Your task to perform on an android device: turn on priority inbox in the gmail app Image 0: 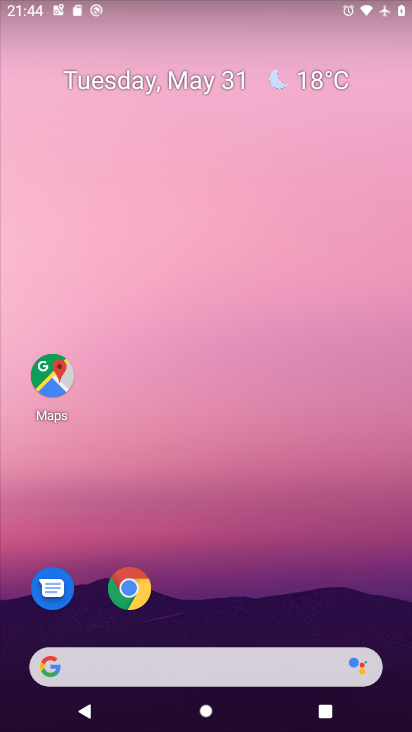
Step 0: press home button
Your task to perform on an android device: turn on priority inbox in the gmail app Image 1: 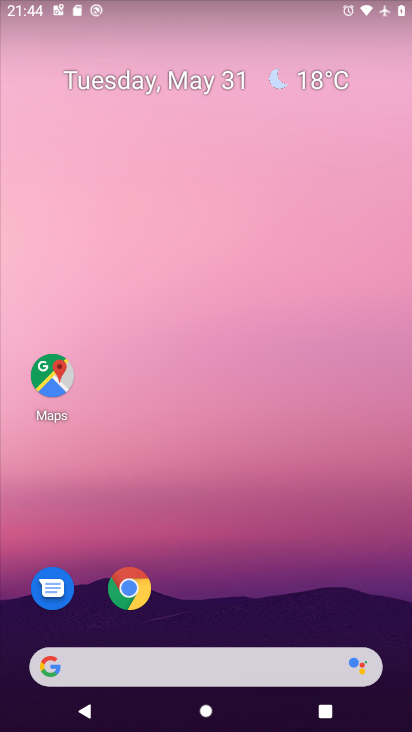
Step 1: drag from (176, 623) to (335, 78)
Your task to perform on an android device: turn on priority inbox in the gmail app Image 2: 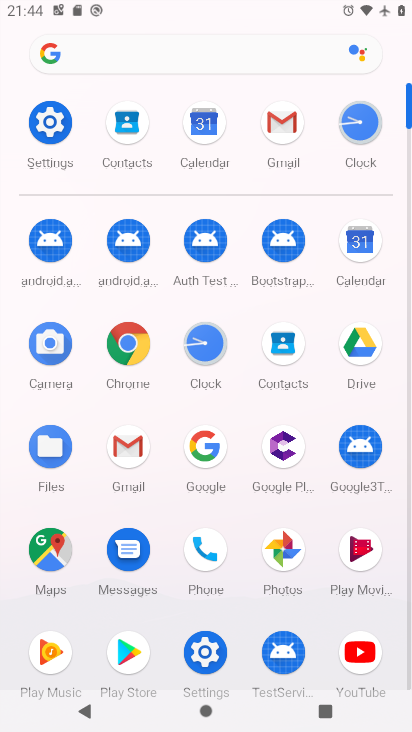
Step 2: click (281, 132)
Your task to perform on an android device: turn on priority inbox in the gmail app Image 3: 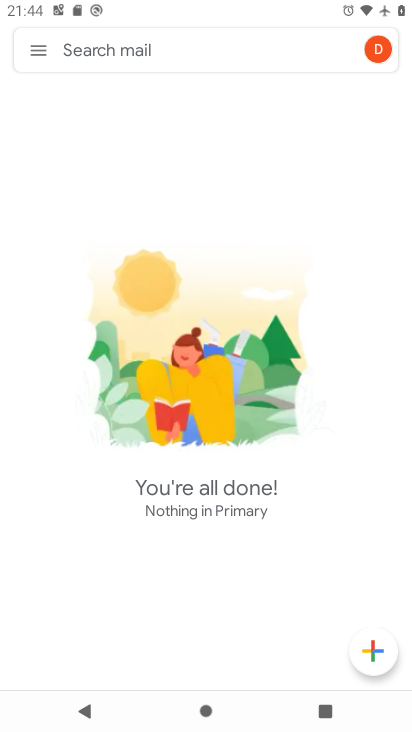
Step 3: click (31, 46)
Your task to perform on an android device: turn on priority inbox in the gmail app Image 4: 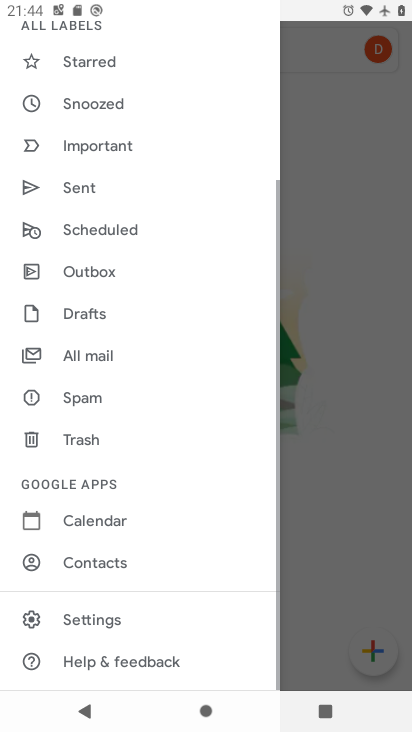
Step 4: click (71, 625)
Your task to perform on an android device: turn on priority inbox in the gmail app Image 5: 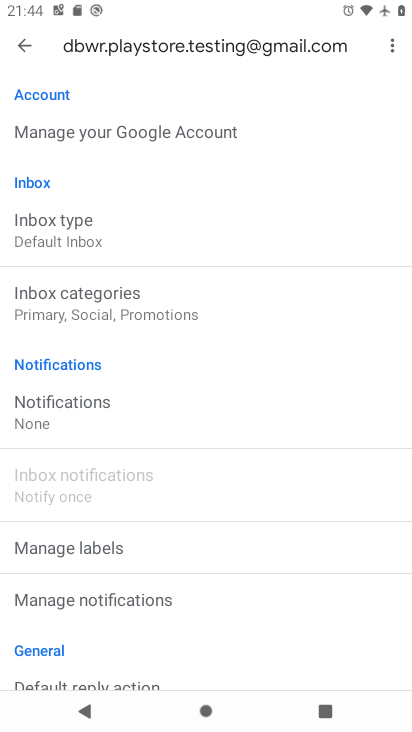
Step 5: click (64, 223)
Your task to perform on an android device: turn on priority inbox in the gmail app Image 6: 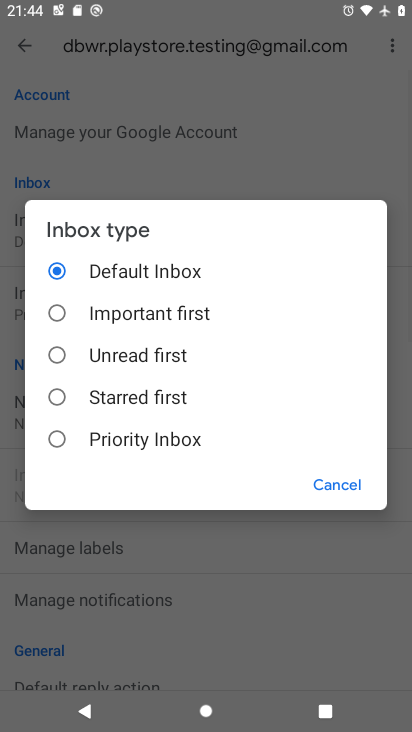
Step 6: click (56, 446)
Your task to perform on an android device: turn on priority inbox in the gmail app Image 7: 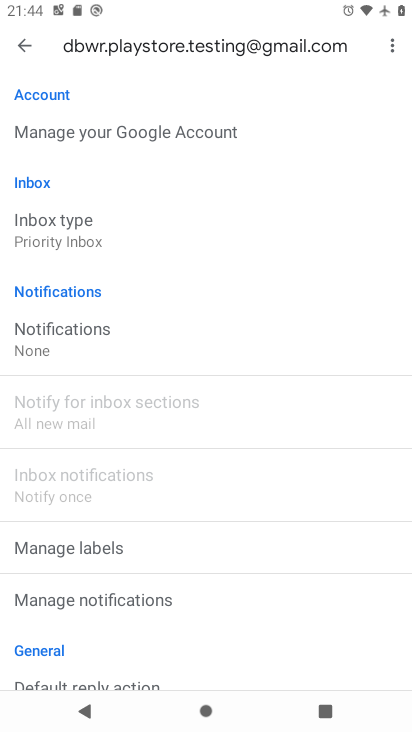
Step 7: task complete